Your task to perform on an android device: Search for pizza restaurants on Maps Image 0: 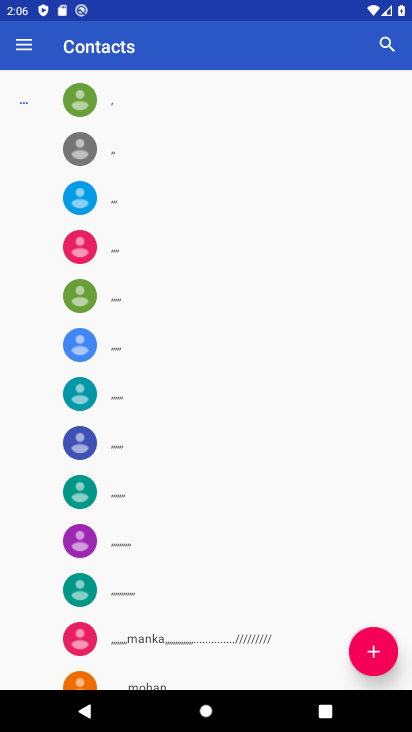
Step 0: press home button
Your task to perform on an android device: Search for pizza restaurants on Maps Image 1: 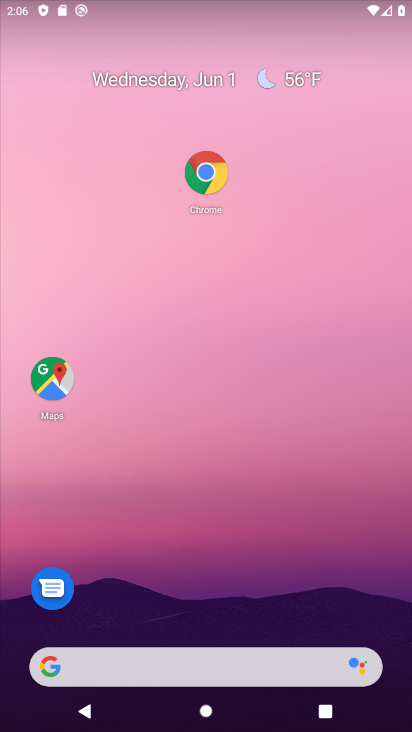
Step 1: click (55, 380)
Your task to perform on an android device: Search for pizza restaurants on Maps Image 2: 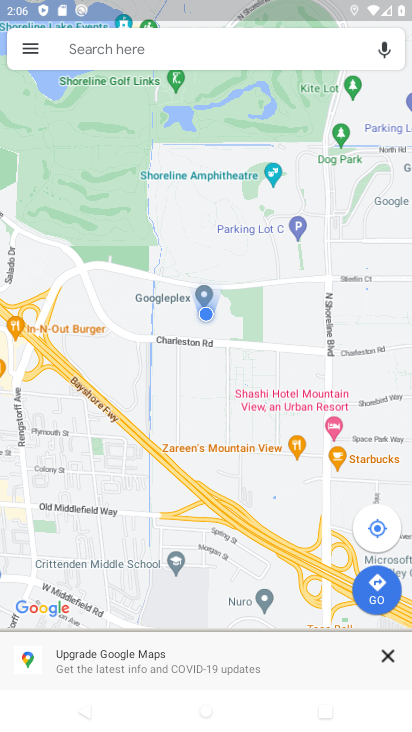
Step 2: click (213, 54)
Your task to perform on an android device: Search for pizza restaurants on Maps Image 3: 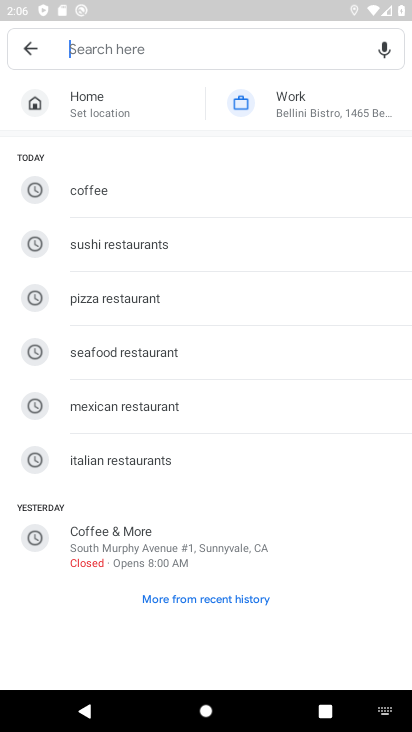
Step 3: click (167, 307)
Your task to perform on an android device: Search for pizza restaurants on Maps Image 4: 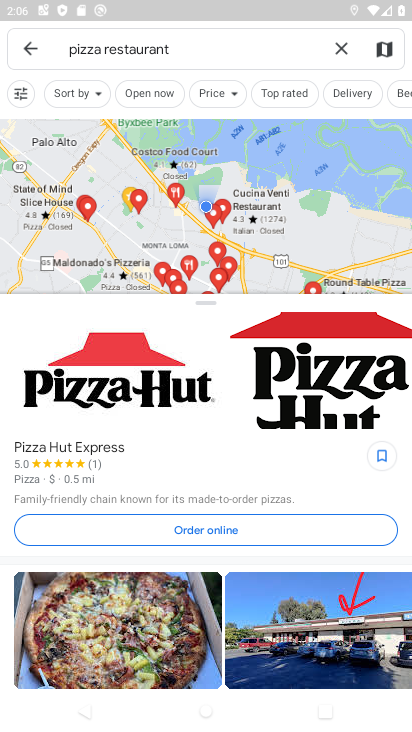
Step 4: task complete